Your task to perform on an android device: Open the stopwatch Image 0: 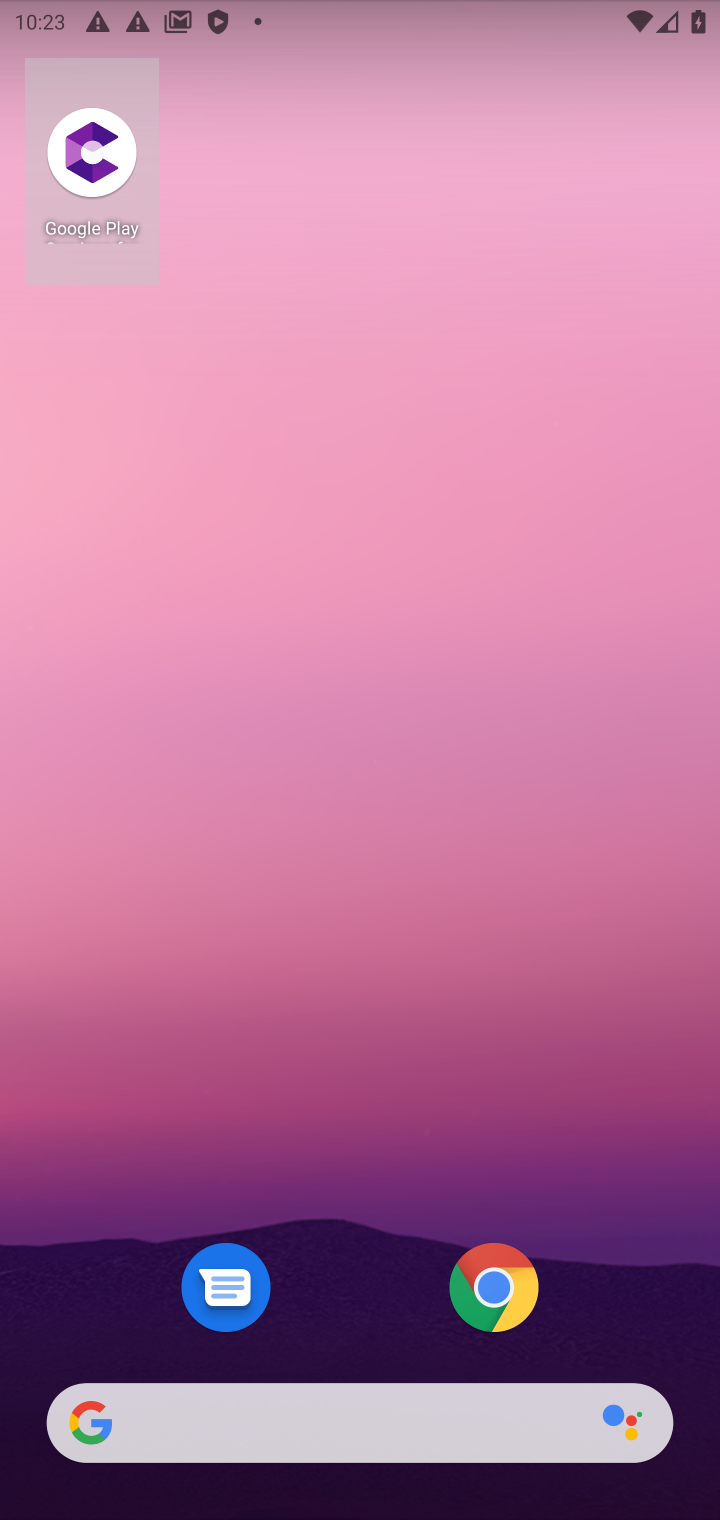
Step 0: press home button
Your task to perform on an android device: Open the stopwatch Image 1: 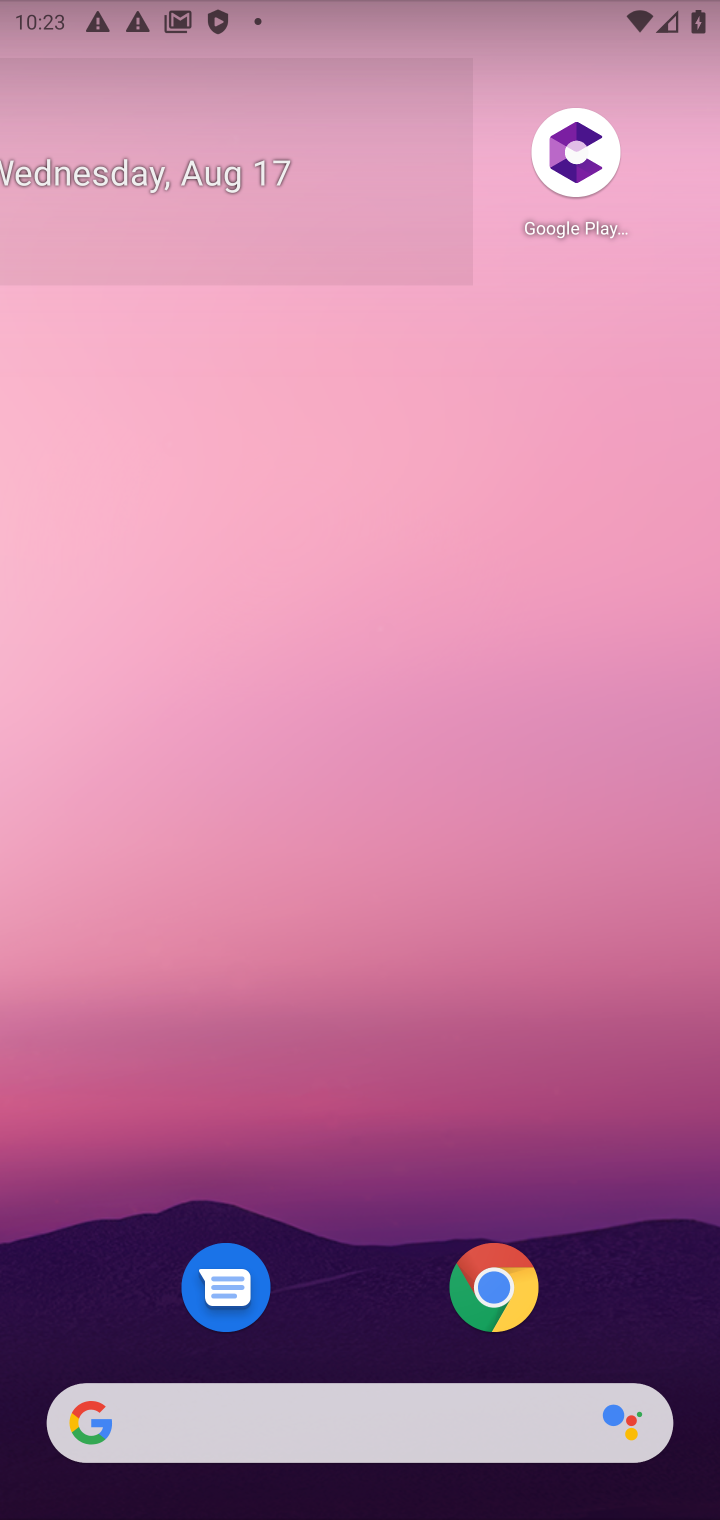
Step 1: click (478, 1291)
Your task to perform on an android device: Open the stopwatch Image 2: 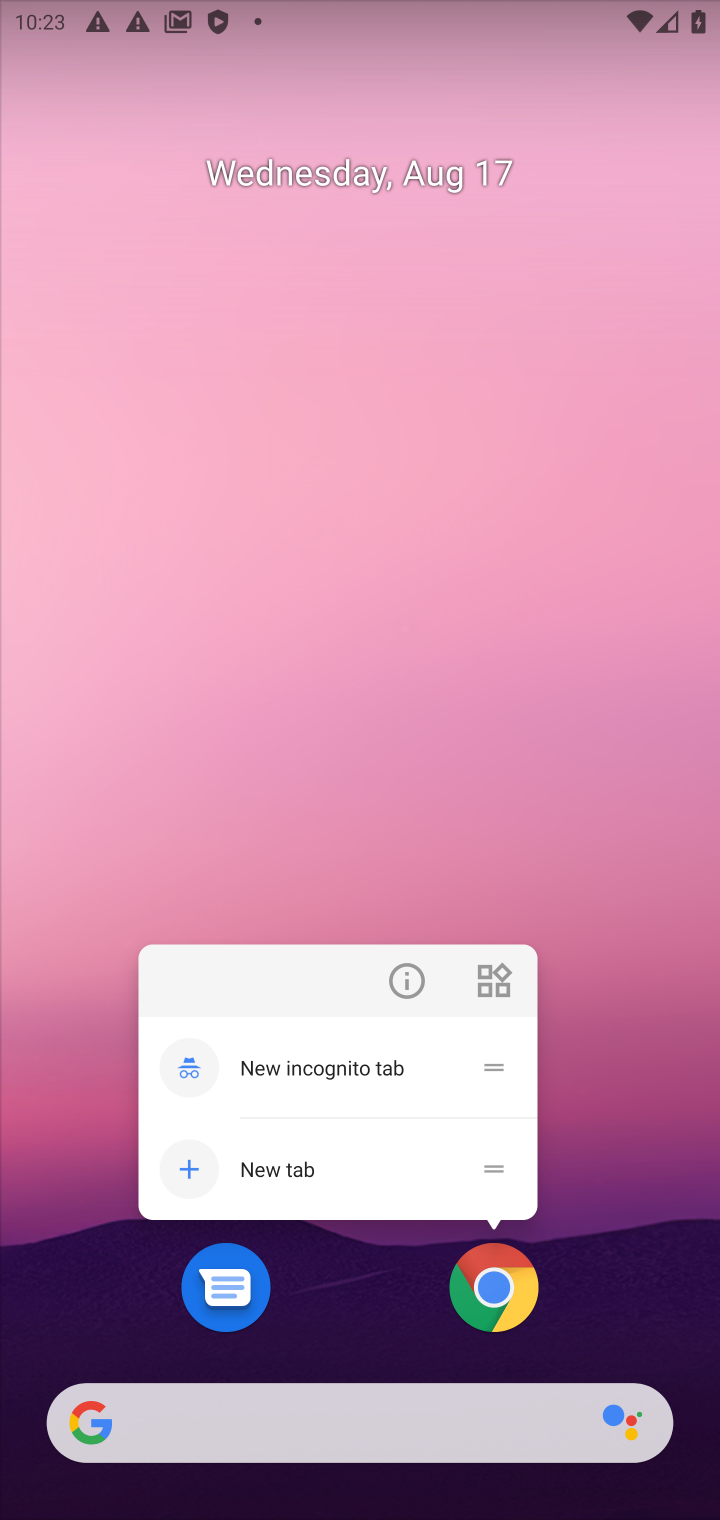
Step 2: click (501, 1296)
Your task to perform on an android device: Open the stopwatch Image 3: 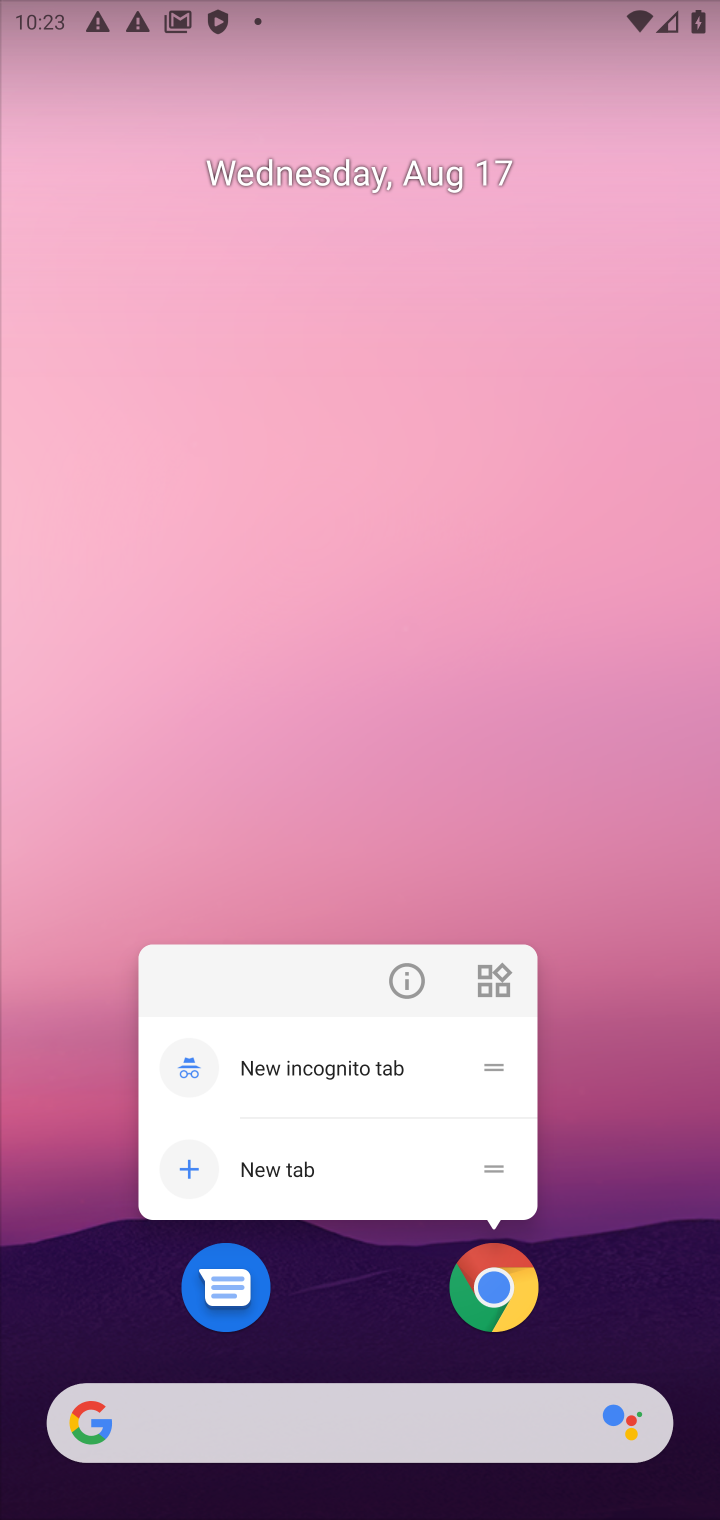
Step 3: click (507, 1282)
Your task to perform on an android device: Open the stopwatch Image 4: 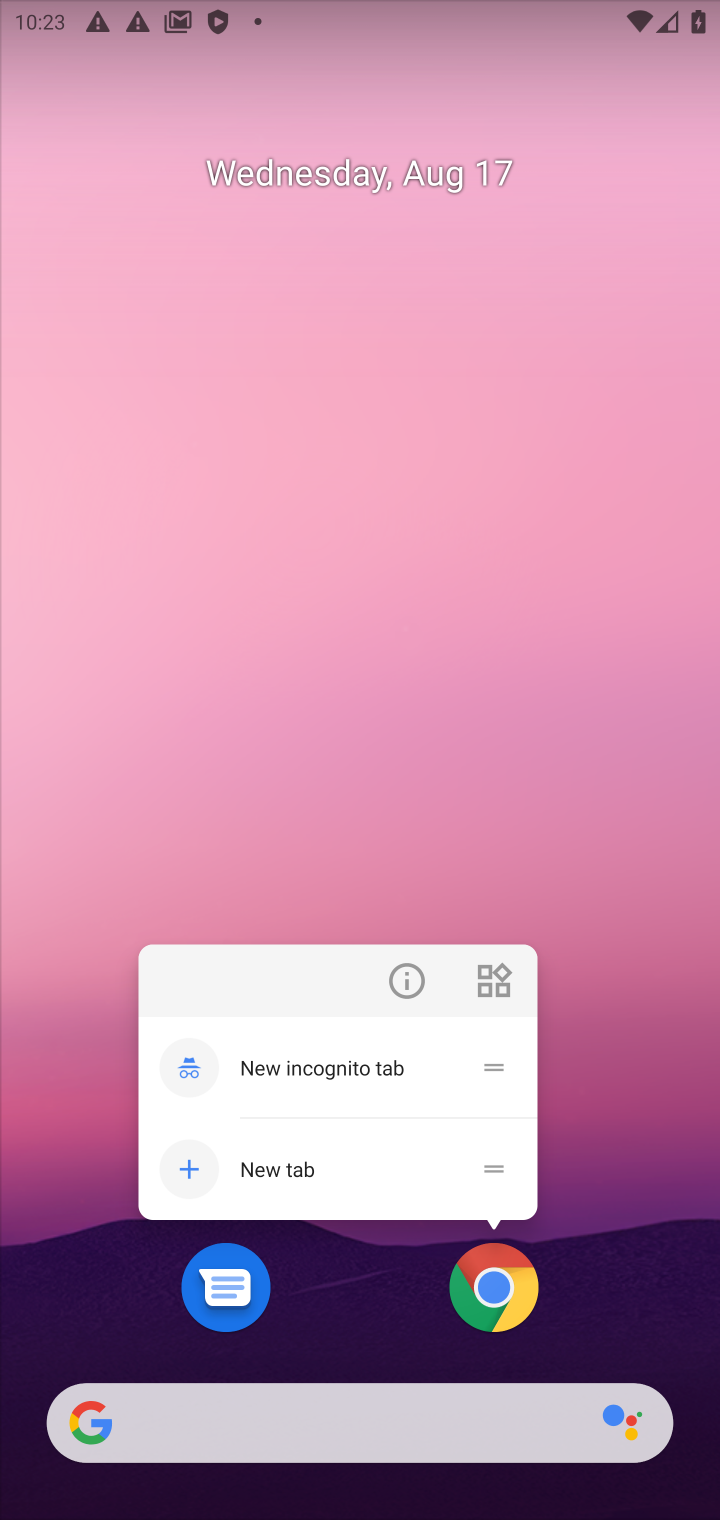
Step 4: click (507, 1282)
Your task to perform on an android device: Open the stopwatch Image 5: 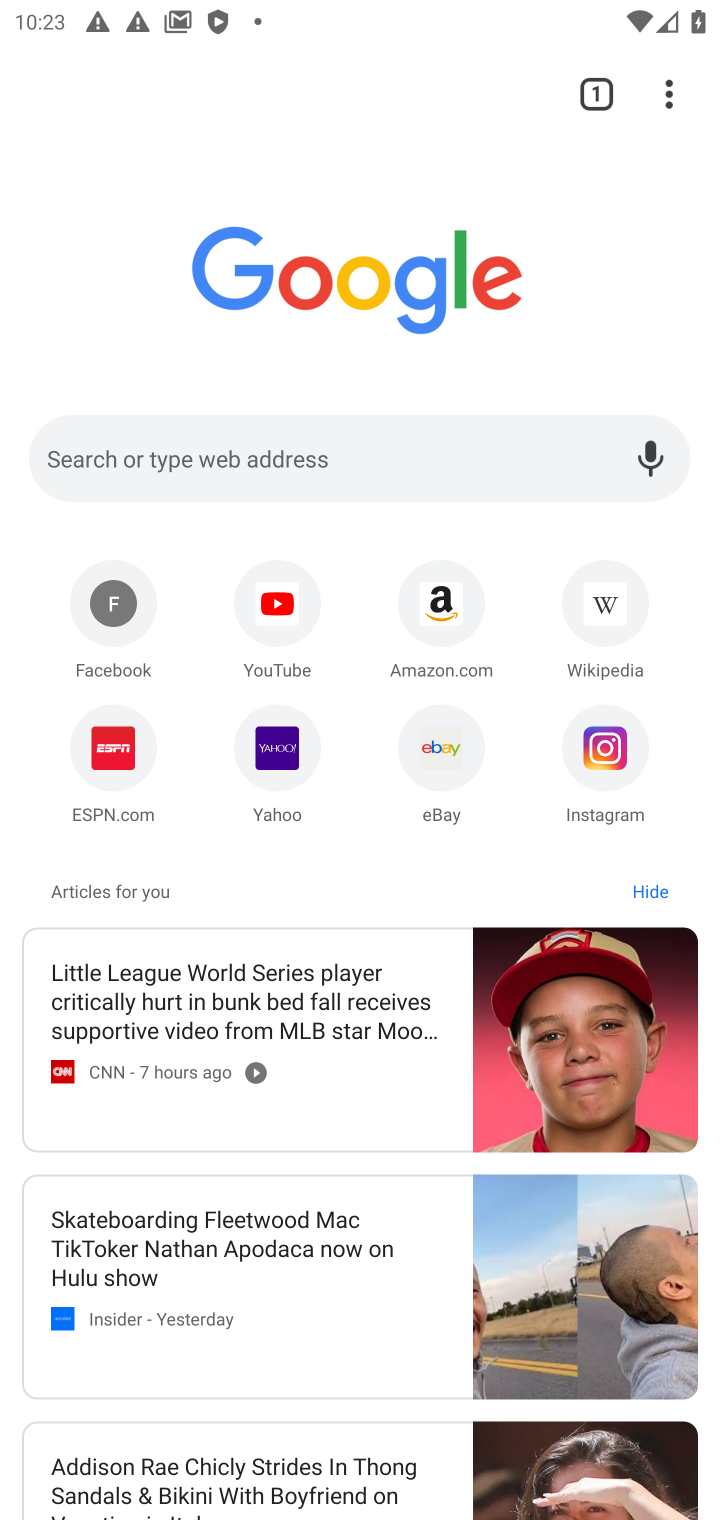
Step 5: click (674, 67)
Your task to perform on an android device: Open the stopwatch Image 6: 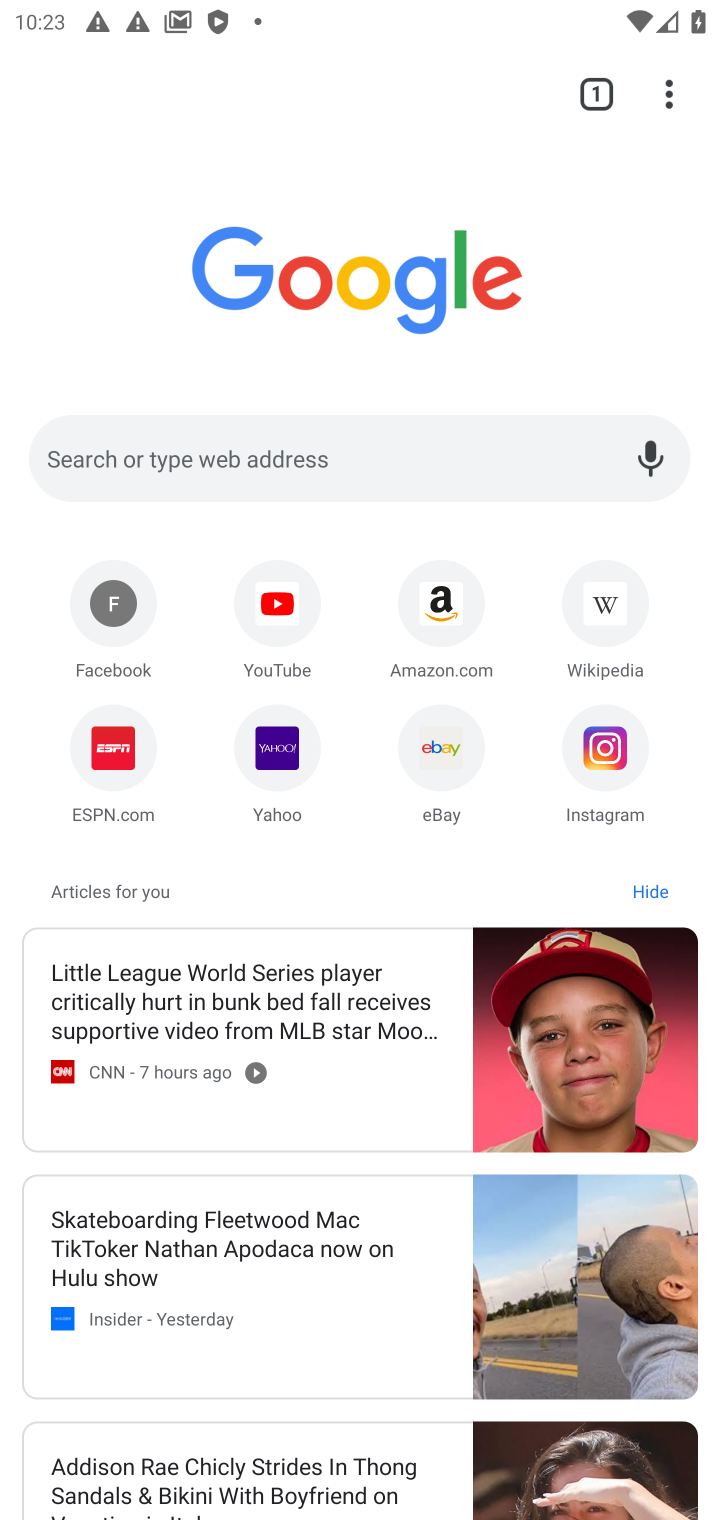
Step 6: press home button
Your task to perform on an android device: Open the stopwatch Image 7: 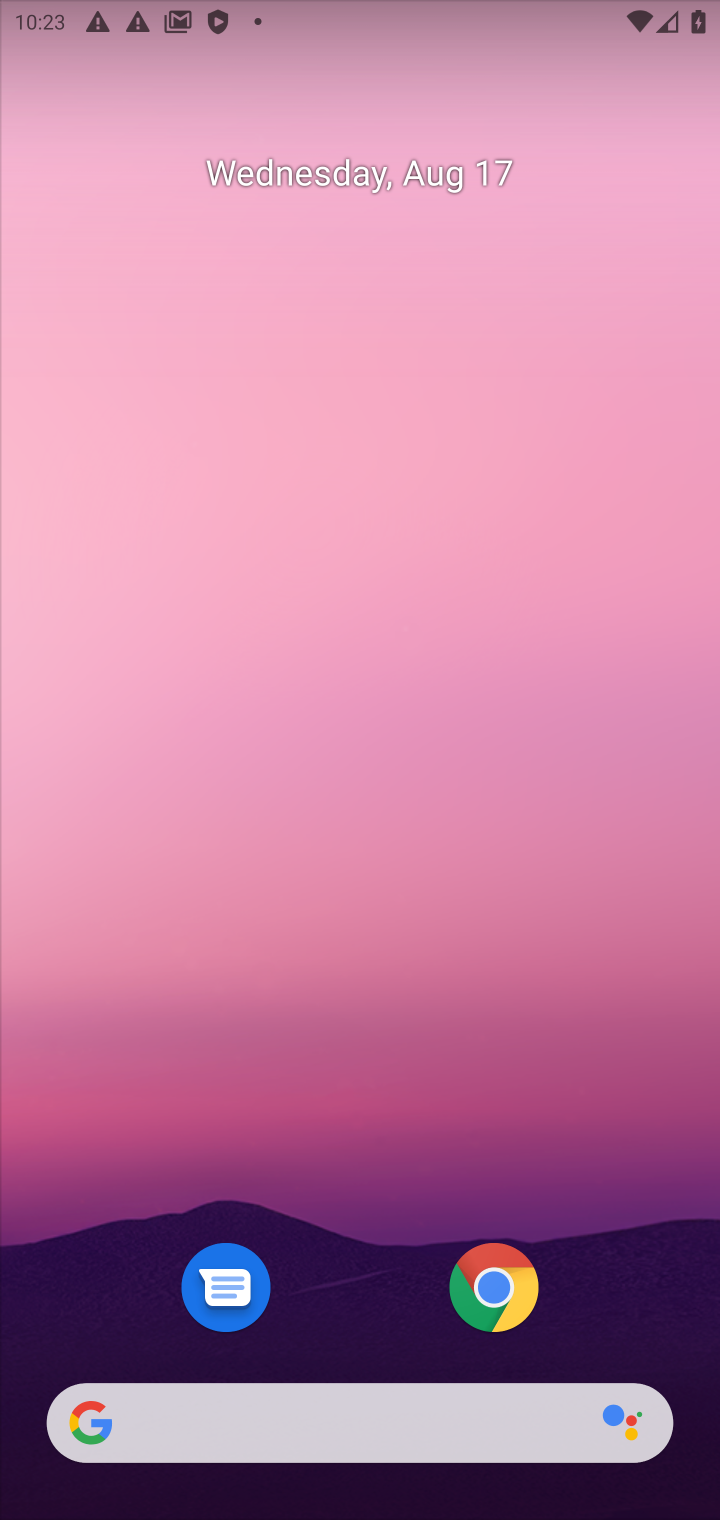
Step 7: drag from (416, 721) to (567, 24)
Your task to perform on an android device: Open the stopwatch Image 8: 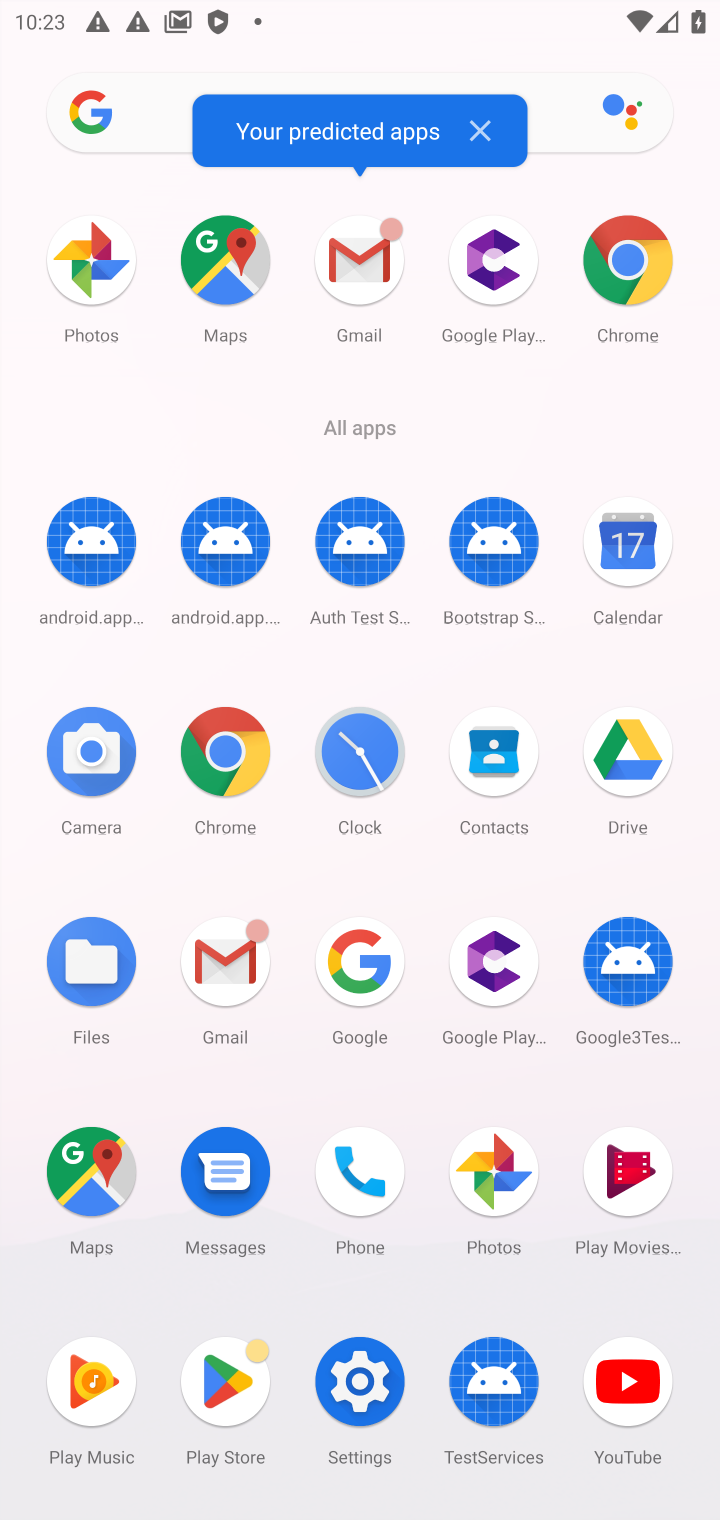
Step 8: click (356, 754)
Your task to perform on an android device: Open the stopwatch Image 9: 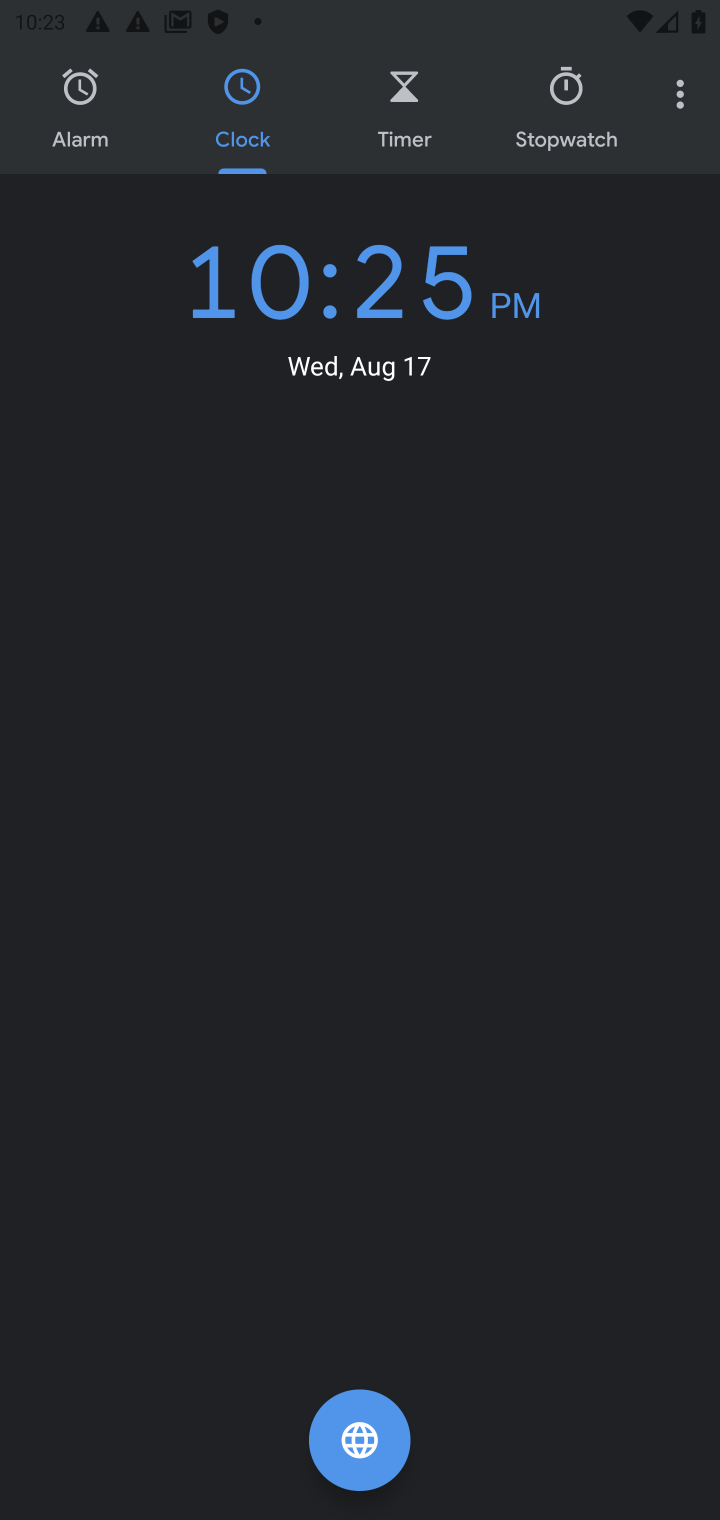
Step 9: click (584, 110)
Your task to perform on an android device: Open the stopwatch Image 10: 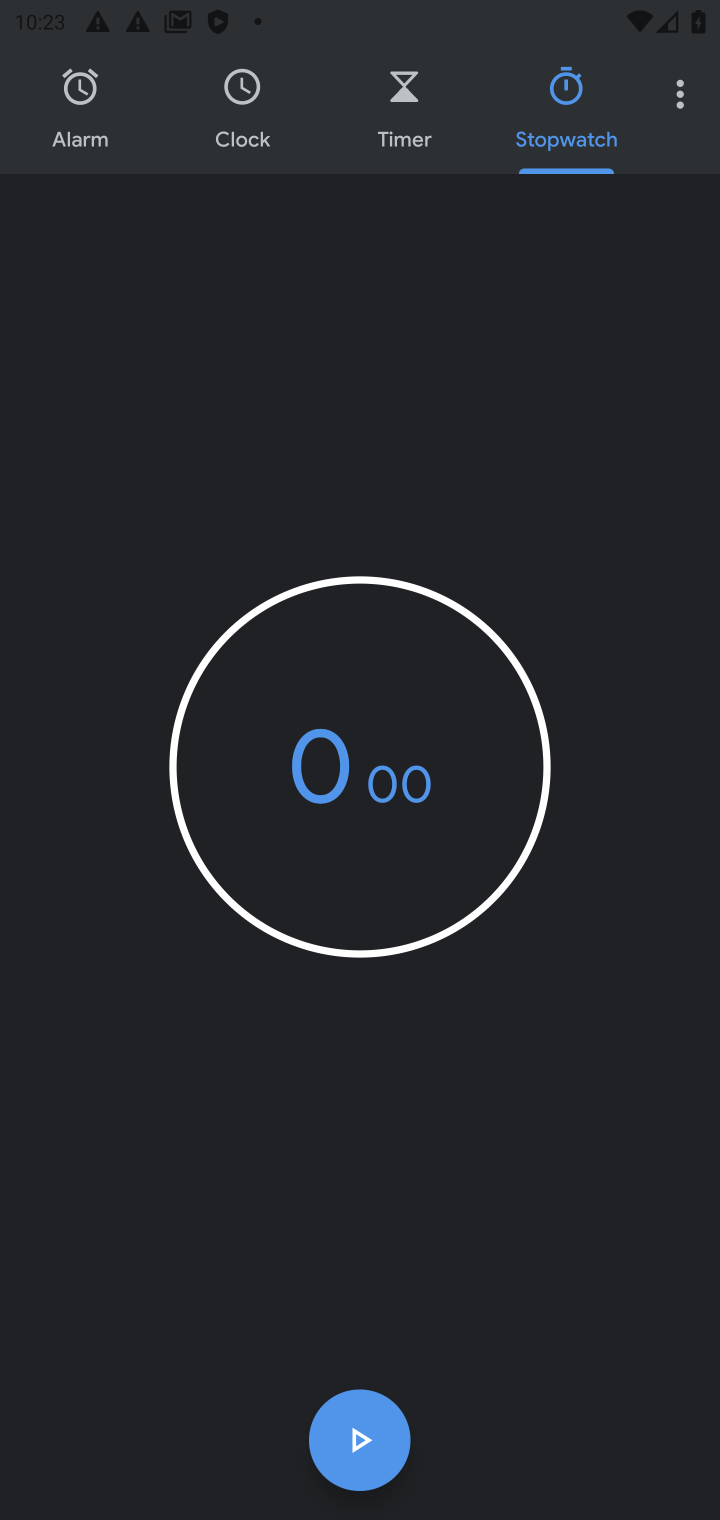
Step 10: click (376, 1447)
Your task to perform on an android device: Open the stopwatch Image 11: 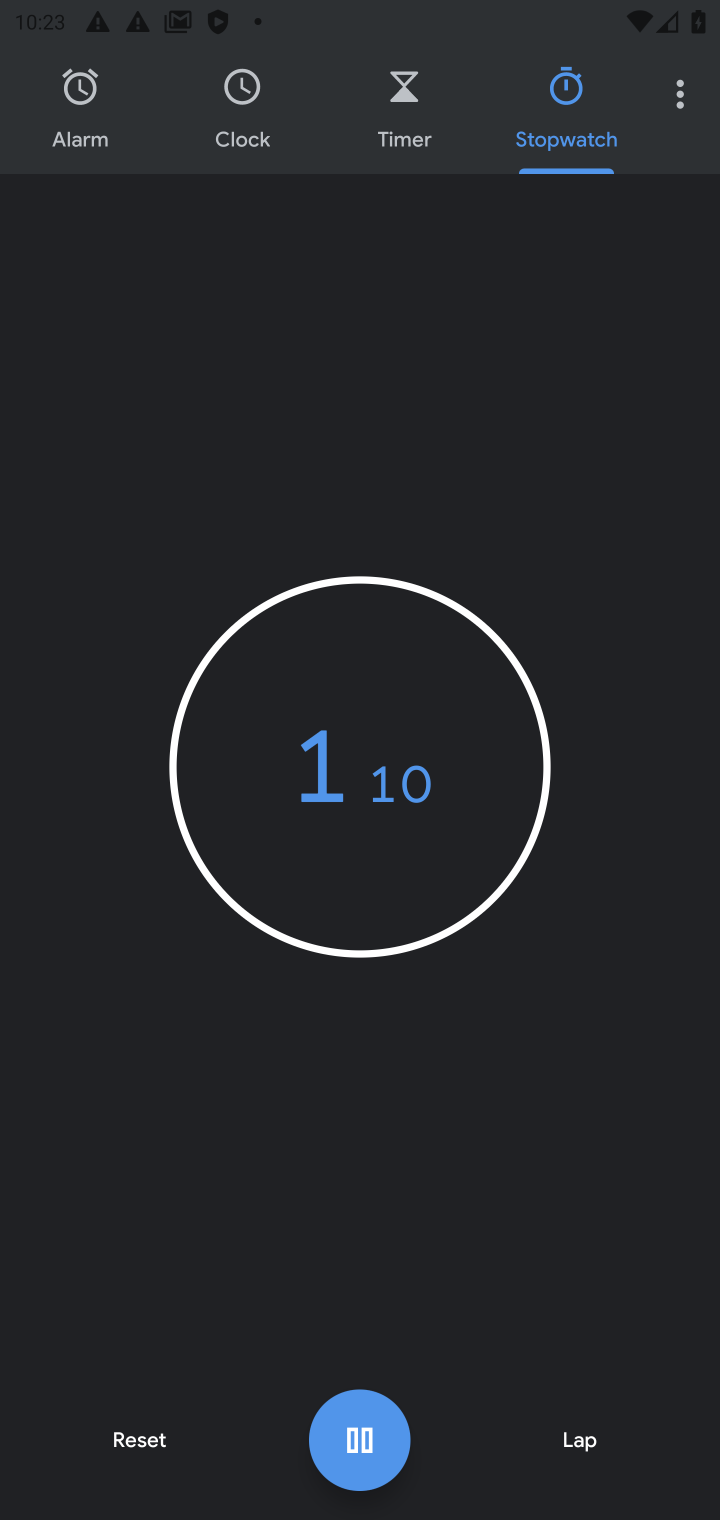
Step 11: click (341, 1418)
Your task to perform on an android device: Open the stopwatch Image 12: 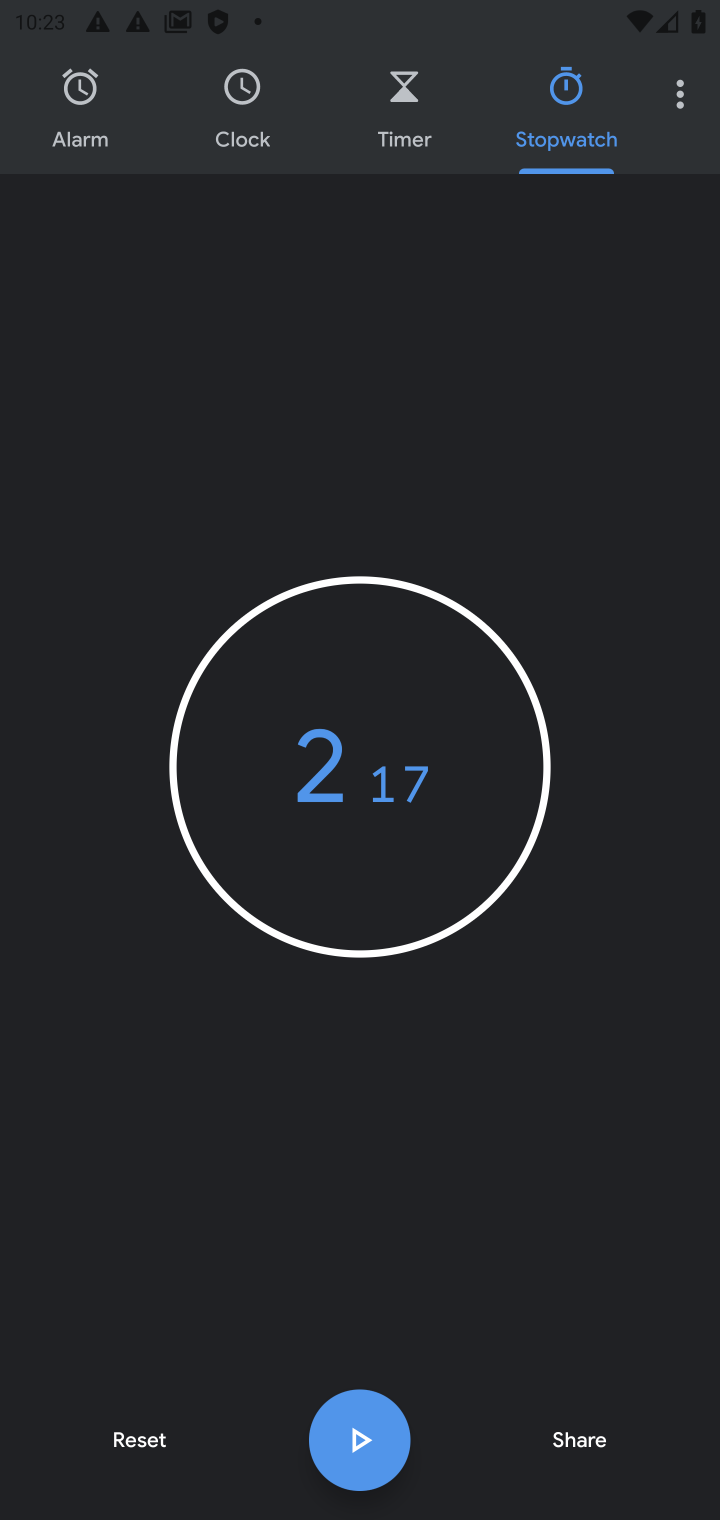
Step 12: task complete